Your task to perform on an android device: Go to settings Image 0: 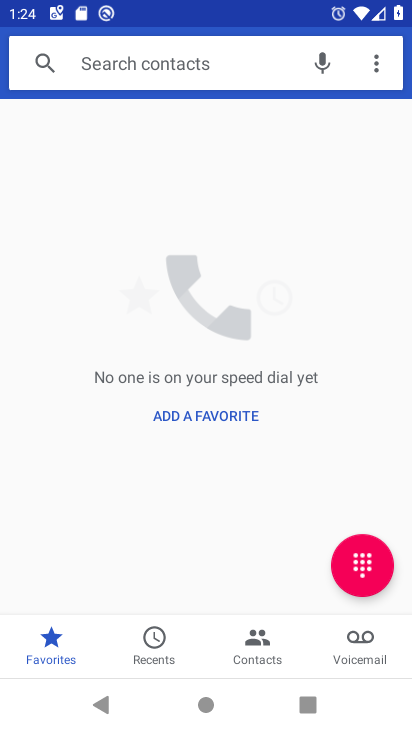
Step 0: press home button
Your task to perform on an android device: Go to settings Image 1: 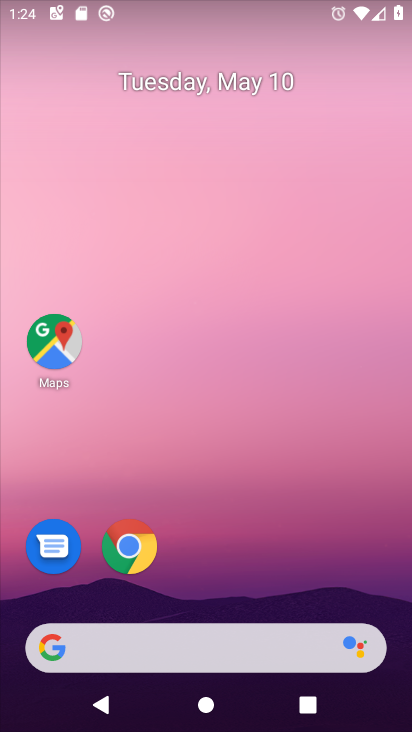
Step 1: drag from (278, 558) to (285, 56)
Your task to perform on an android device: Go to settings Image 2: 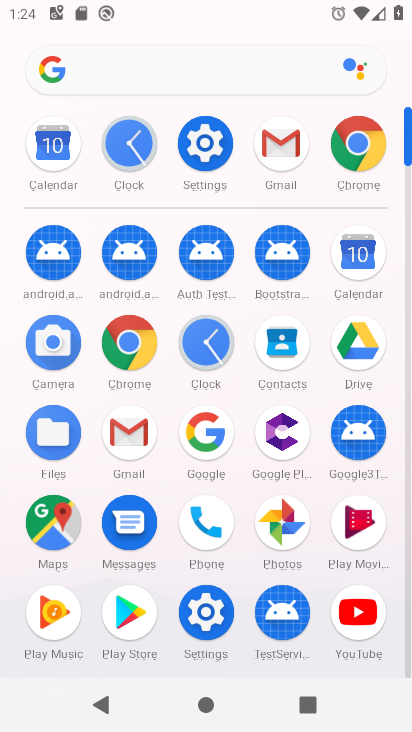
Step 2: click (204, 145)
Your task to perform on an android device: Go to settings Image 3: 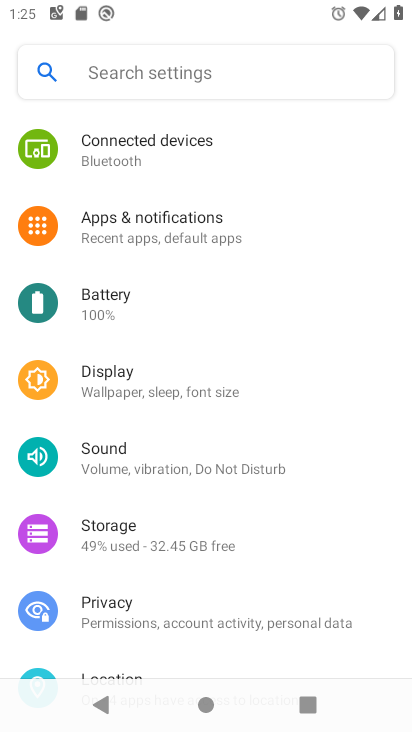
Step 3: task complete